Your task to perform on an android device: toggle pop-ups in chrome Image 0: 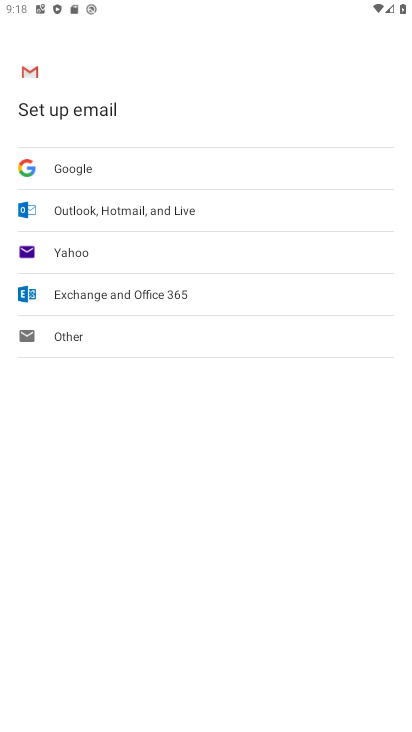
Step 0: press home button
Your task to perform on an android device: toggle pop-ups in chrome Image 1: 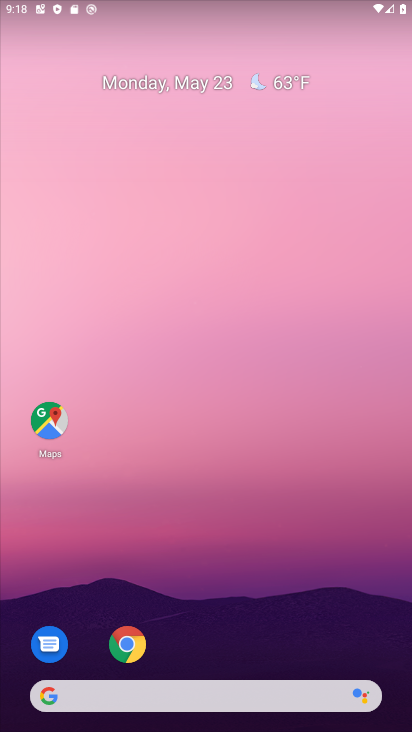
Step 1: click (125, 643)
Your task to perform on an android device: toggle pop-ups in chrome Image 2: 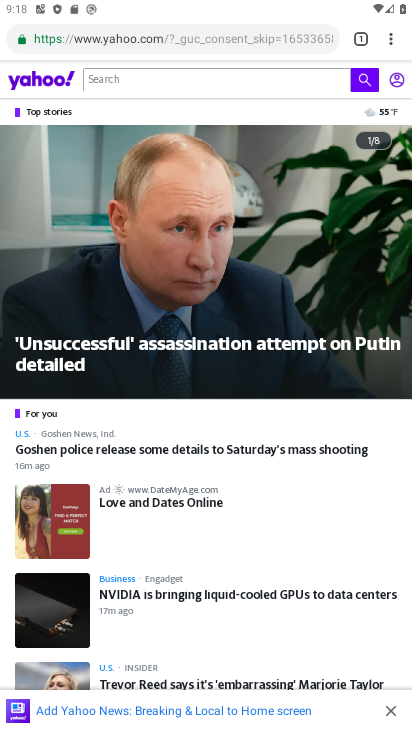
Step 2: click (387, 39)
Your task to perform on an android device: toggle pop-ups in chrome Image 3: 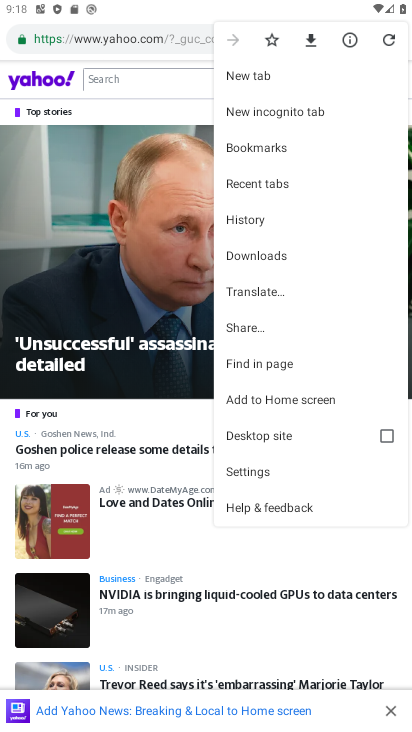
Step 3: click (267, 481)
Your task to perform on an android device: toggle pop-ups in chrome Image 4: 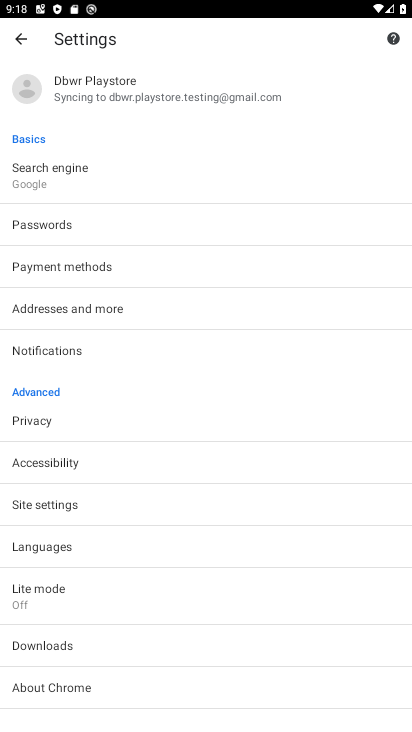
Step 4: click (83, 504)
Your task to perform on an android device: toggle pop-ups in chrome Image 5: 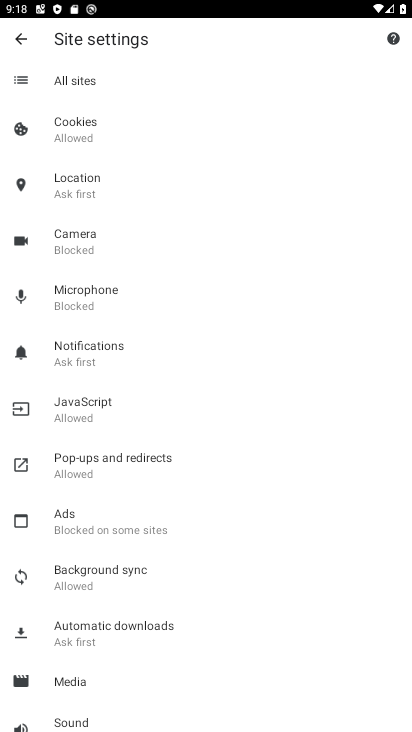
Step 5: click (121, 471)
Your task to perform on an android device: toggle pop-ups in chrome Image 6: 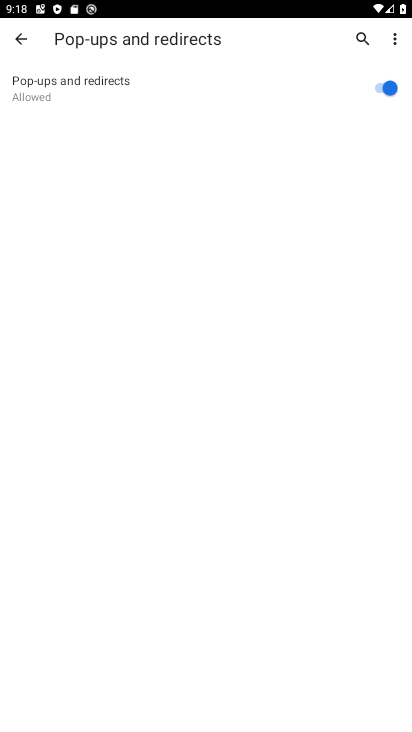
Step 6: click (382, 91)
Your task to perform on an android device: toggle pop-ups in chrome Image 7: 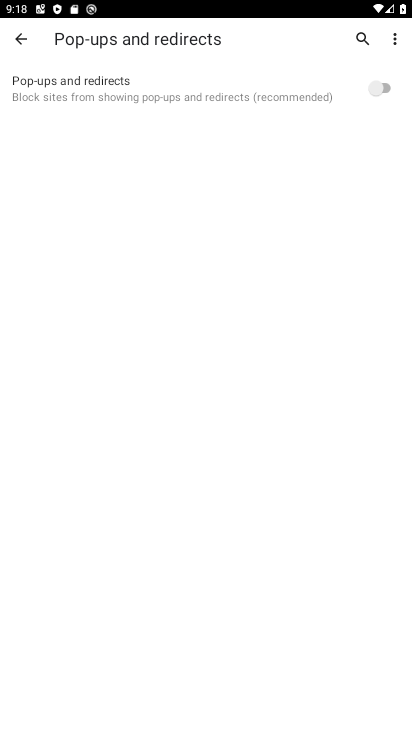
Step 7: task complete